Your task to perform on an android device: uninstall "Airtel Thanks" Image 0: 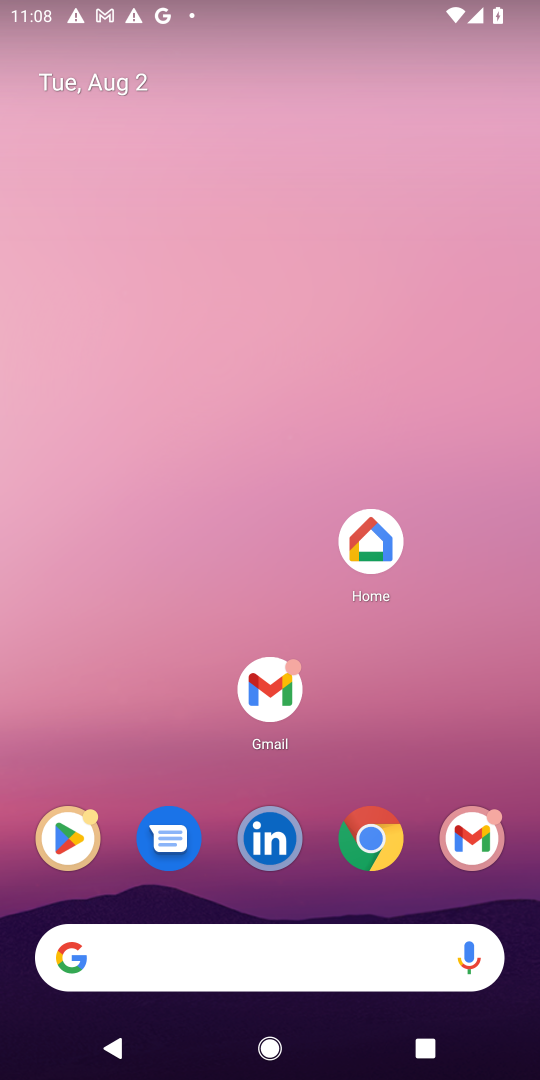
Step 0: drag from (438, 756) to (443, 194)
Your task to perform on an android device: uninstall "Airtel Thanks" Image 1: 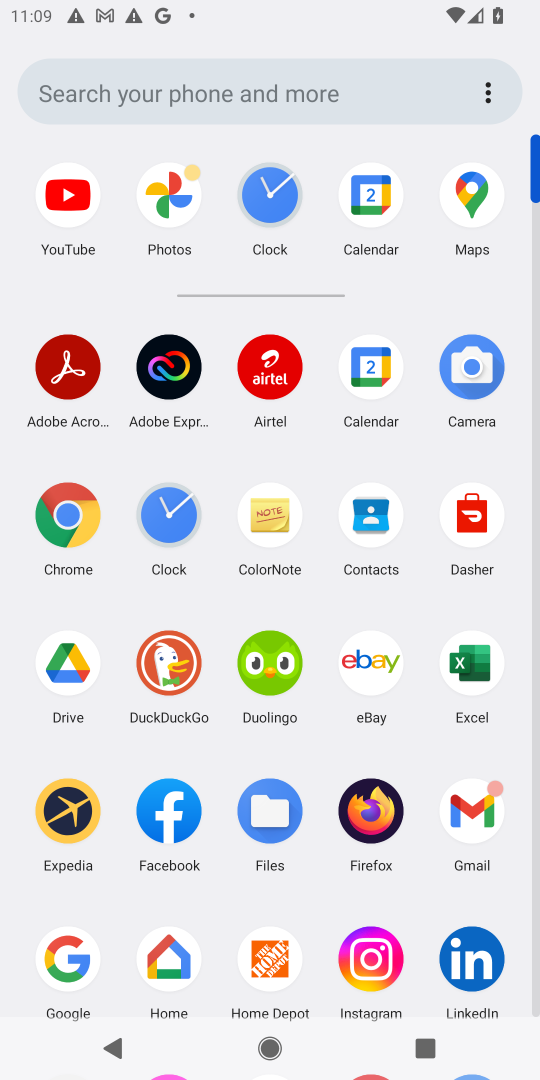
Step 1: drag from (408, 892) to (408, 762)
Your task to perform on an android device: uninstall "Airtel Thanks" Image 2: 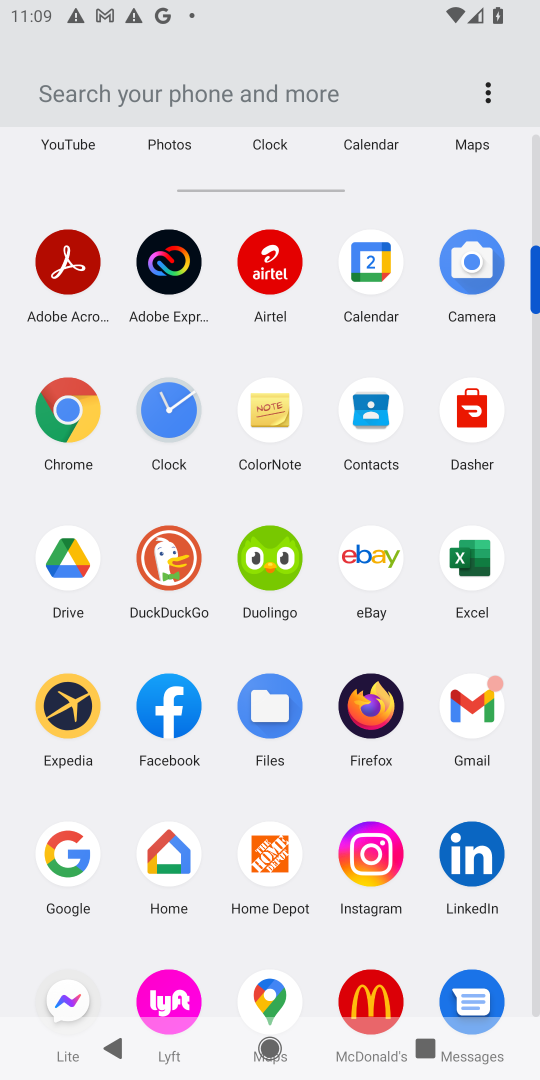
Step 2: drag from (411, 845) to (408, 640)
Your task to perform on an android device: uninstall "Airtel Thanks" Image 3: 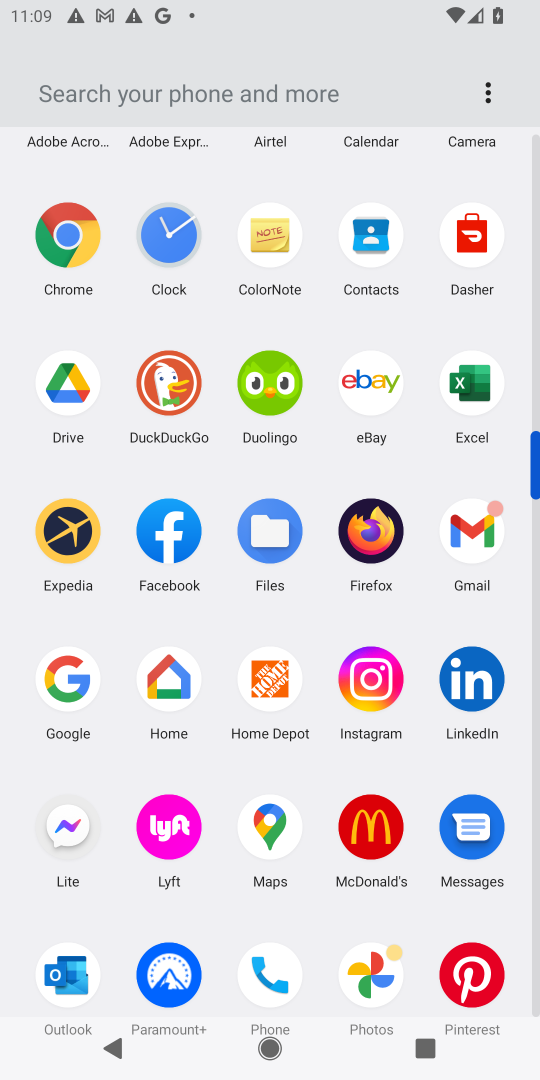
Step 3: drag from (419, 908) to (420, 674)
Your task to perform on an android device: uninstall "Airtel Thanks" Image 4: 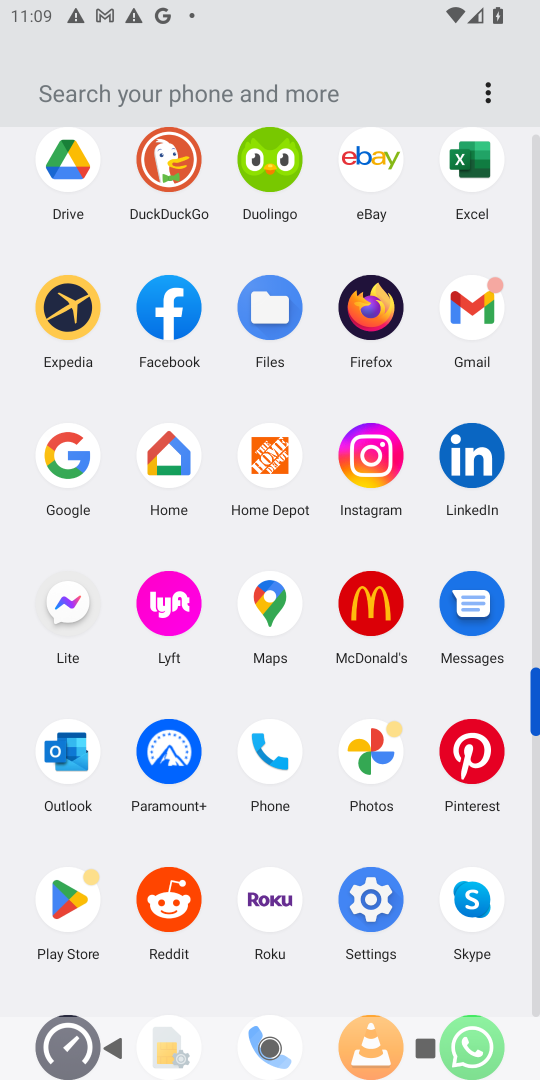
Step 4: drag from (312, 1000) to (305, 676)
Your task to perform on an android device: uninstall "Airtel Thanks" Image 5: 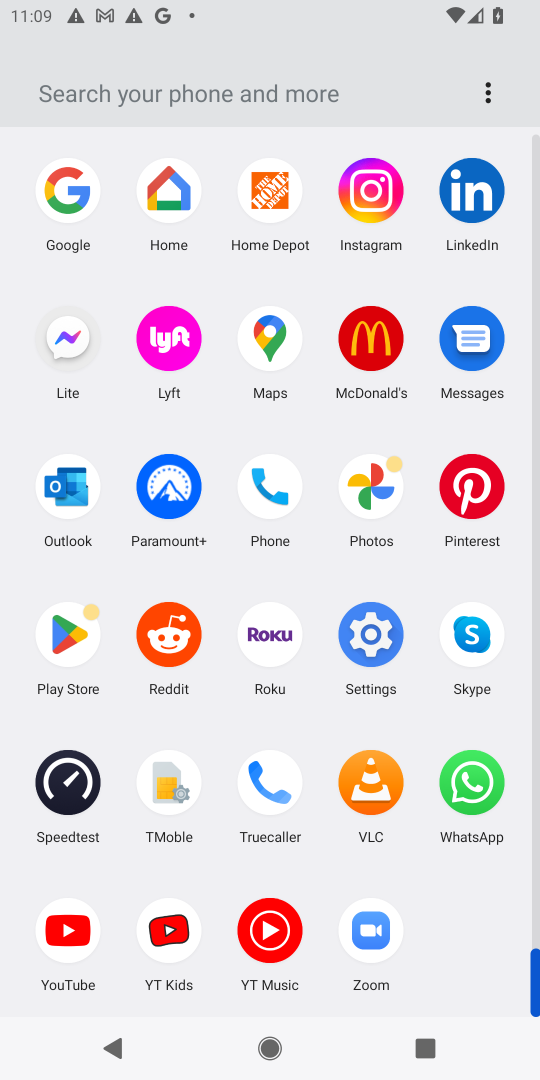
Step 5: click (82, 625)
Your task to perform on an android device: uninstall "Airtel Thanks" Image 6: 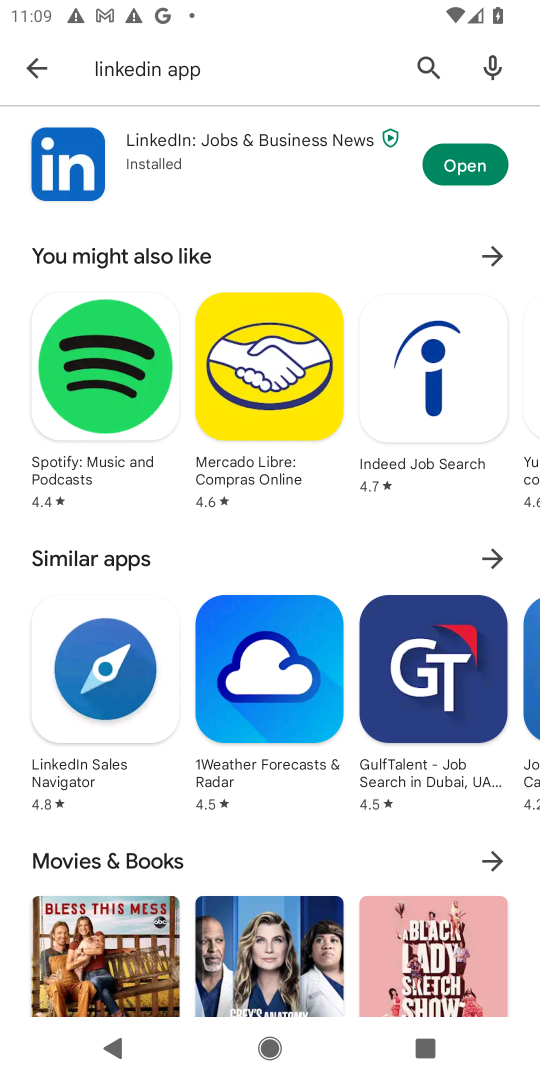
Step 6: click (432, 60)
Your task to perform on an android device: uninstall "Airtel Thanks" Image 7: 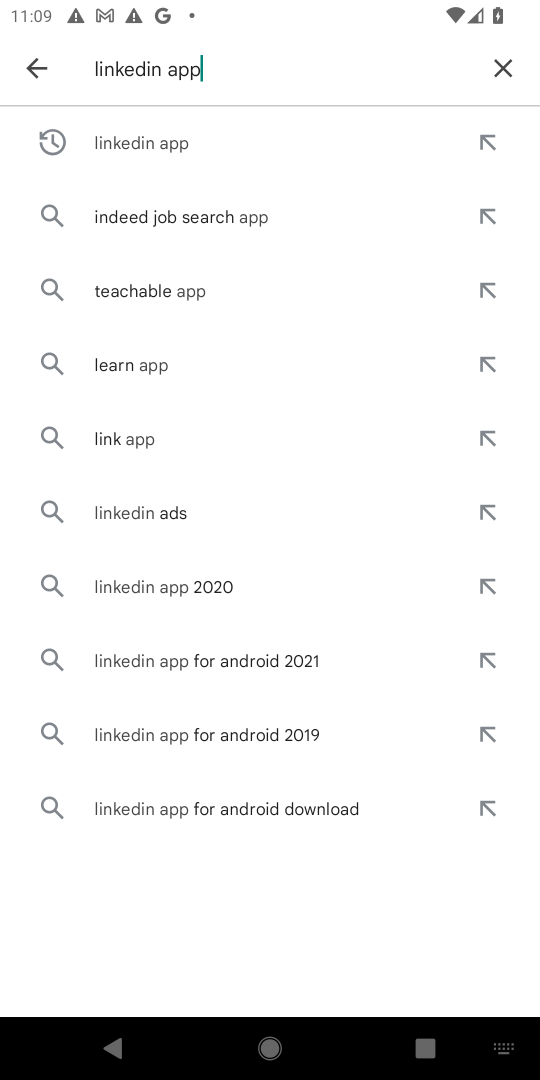
Step 7: click (504, 71)
Your task to perform on an android device: uninstall "Airtel Thanks" Image 8: 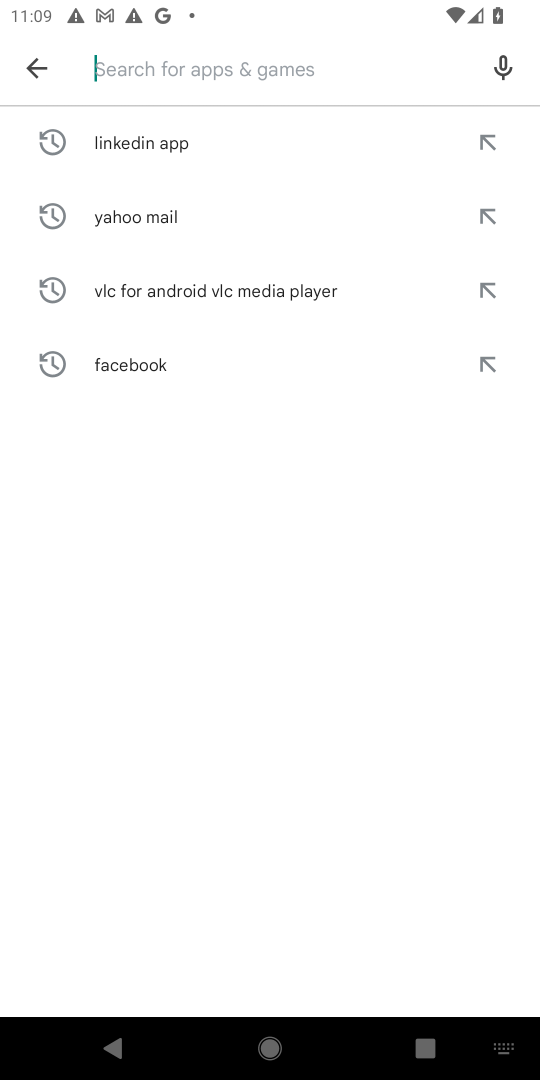
Step 8: click (335, 65)
Your task to perform on an android device: uninstall "Airtel Thanks" Image 9: 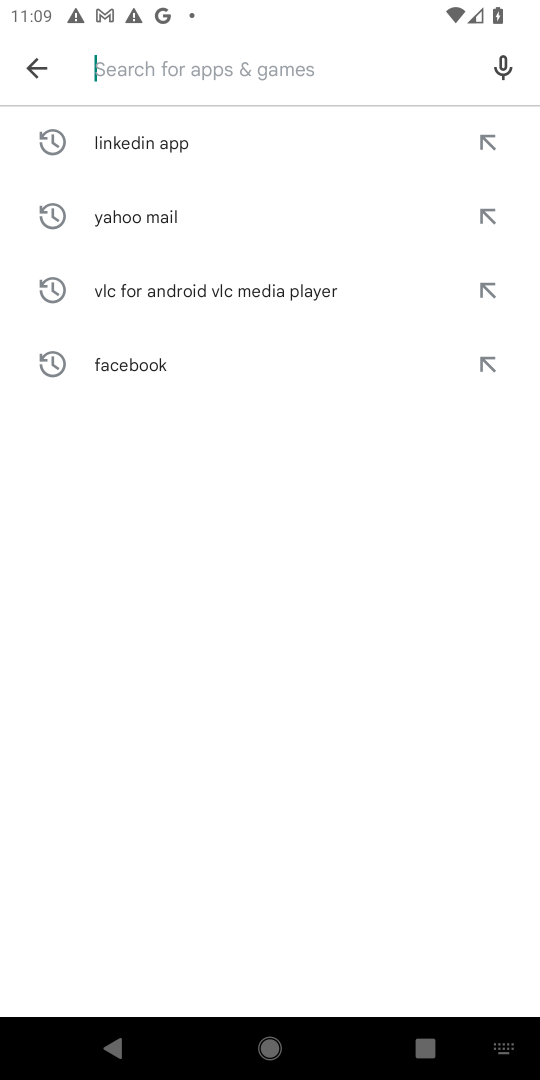
Step 9: type "airtel thanks"
Your task to perform on an android device: uninstall "Airtel Thanks" Image 10: 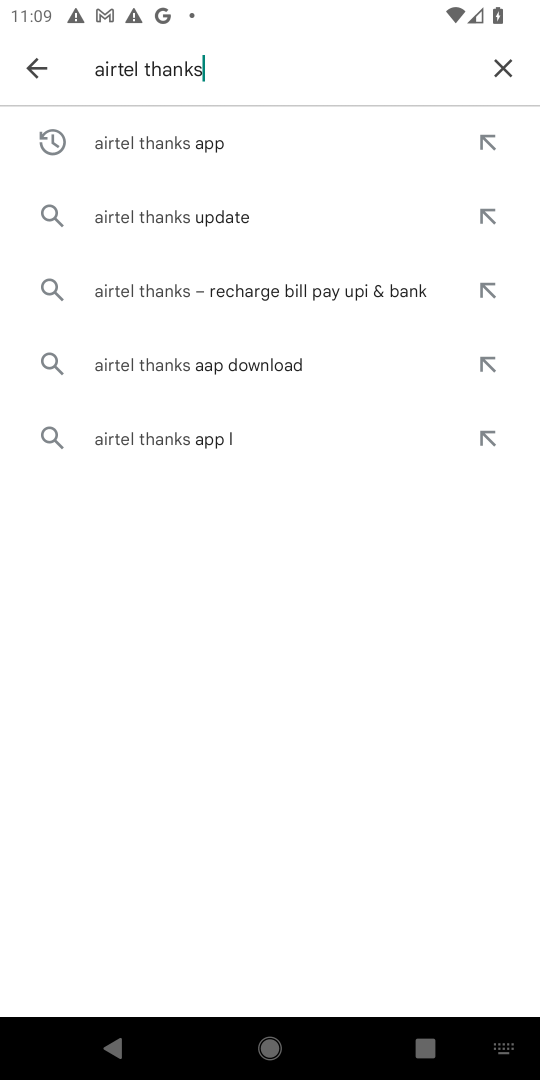
Step 10: click (219, 141)
Your task to perform on an android device: uninstall "Airtel Thanks" Image 11: 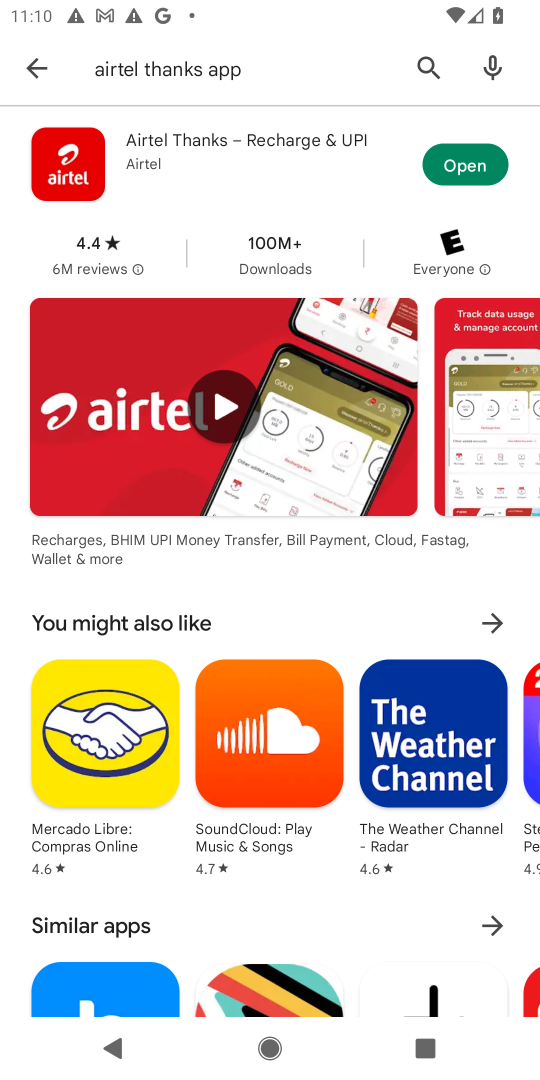
Step 11: task complete